Your task to perform on an android device: turn off translation in the chrome app Image 0: 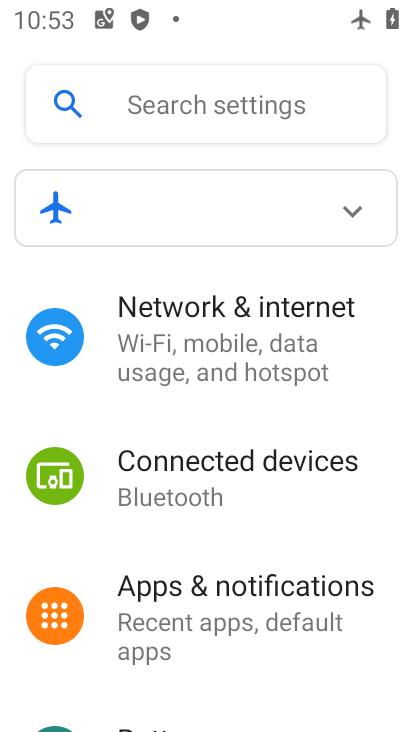
Step 0: press home button
Your task to perform on an android device: turn off translation in the chrome app Image 1: 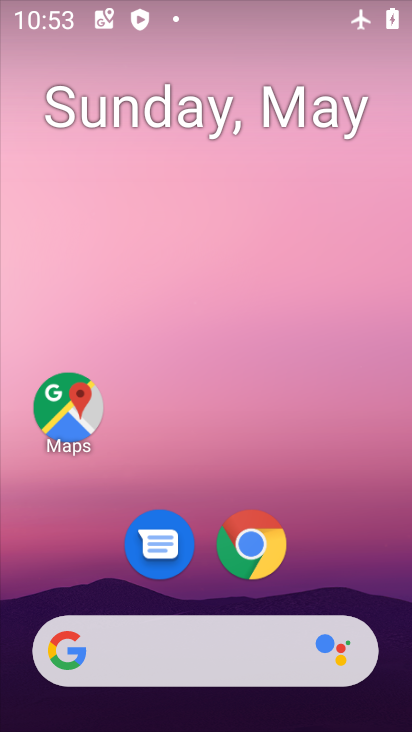
Step 1: drag from (294, 541) to (289, 285)
Your task to perform on an android device: turn off translation in the chrome app Image 2: 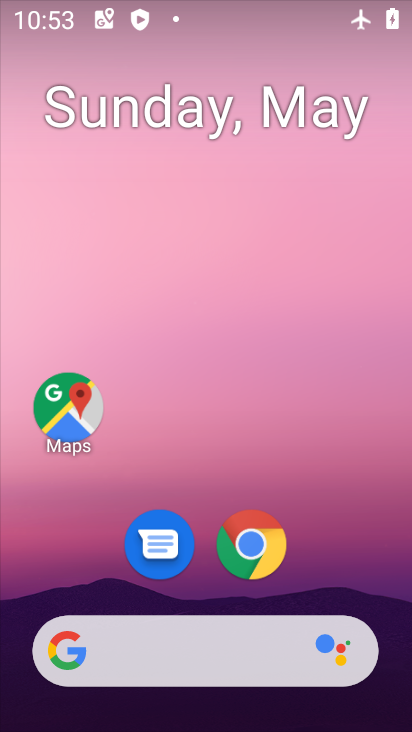
Step 2: drag from (312, 510) to (300, 223)
Your task to perform on an android device: turn off translation in the chrome app Image 3: 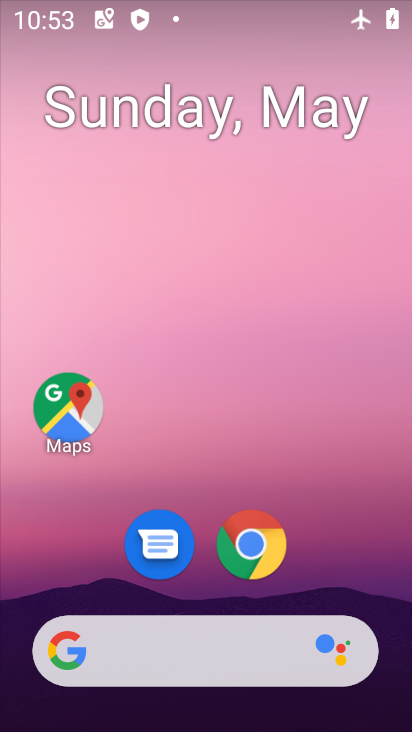
Step 3: drag from (310, 605) to (330, 268)
Your task to perform on an android device: turn off translation in the chrome app Image 4: 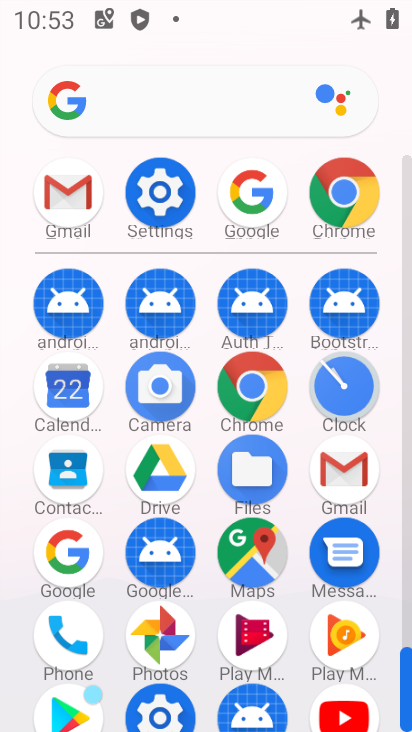
Step 4: click (262, 382)
Your task to perform on an android device: turn off translation in the chrome app Image 5: 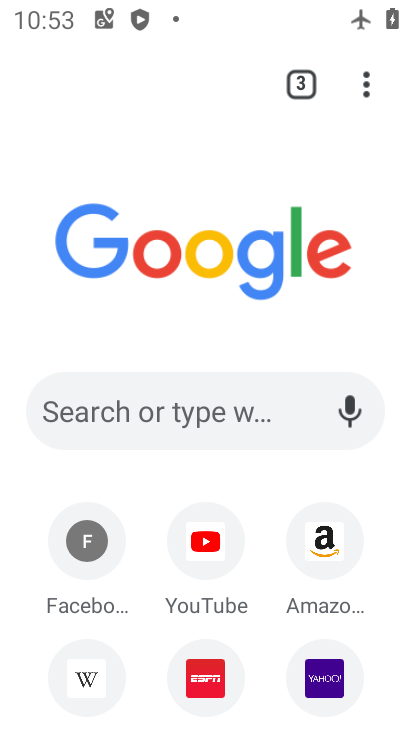
Step 5: click (373, 90)
Your task to perform on an android device: turn off translation in the chrome app Image 6: 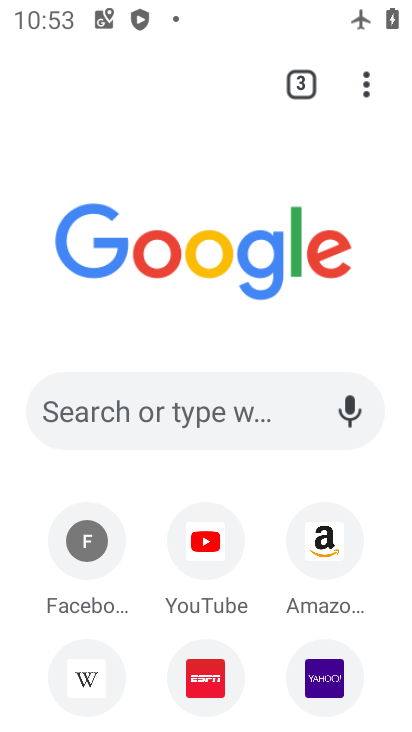
Step 6: click (370, 87)
Your task to perform on an android device: turn off translation in the chrome app Image 7: 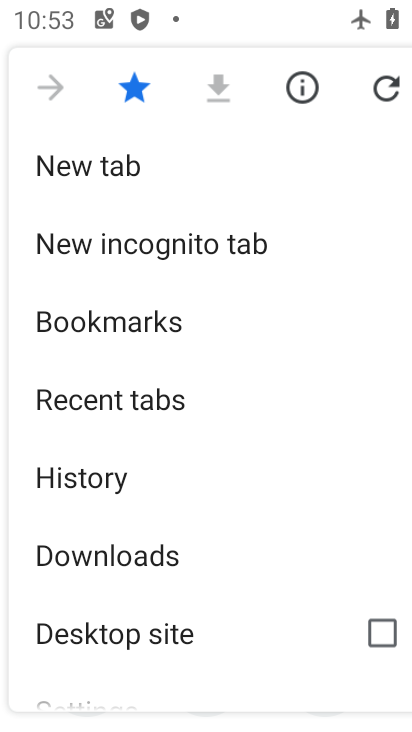
Step 7: drag from (197, 603) to (277, 236)
Your task to perform on an android device: turn off translation in the chrome app Image 8: 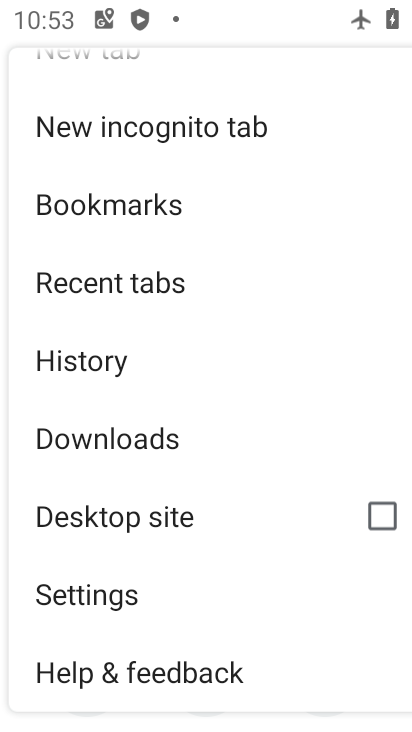
Step 8: click (126, 607)
Your task to perform on an android device: turn off translation in the chrome app Image 9: 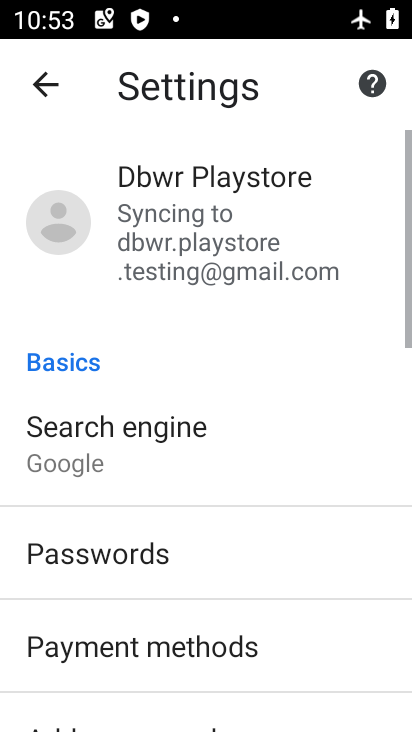
Step 9: drag from (301, 438) to (334, 234)
Your task to perform on an android device: turn off translation in the chrome app Image 10: 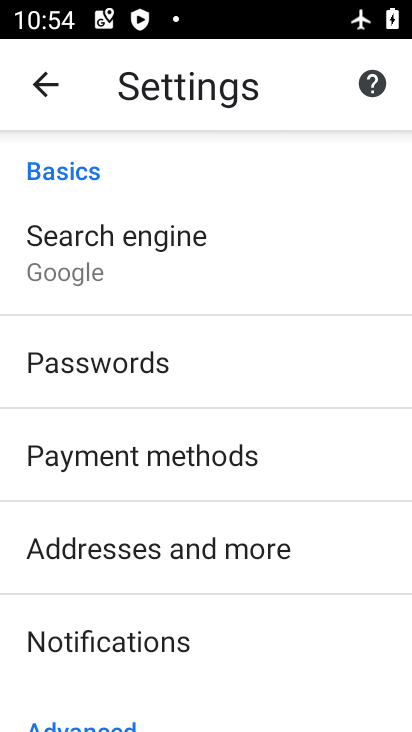
Step 10: drag from (231, 650) to (294, 198)
Your task to perform on an android device: turn off translation in the chrome app Image 11: 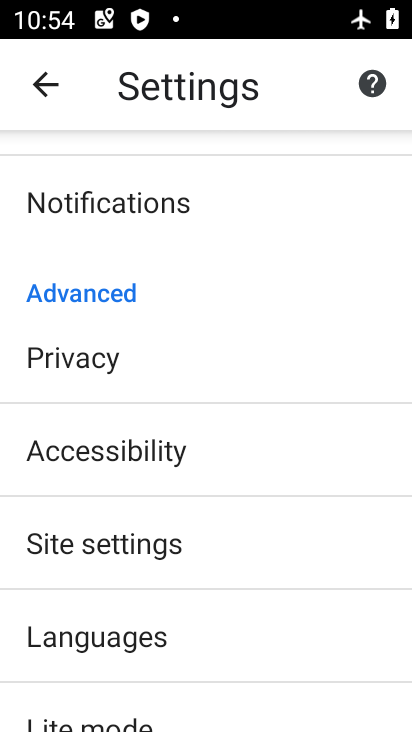
Step 11: drag from (165, 640) to (243, 368)
Your task to perform on an android device: turn off translation in the chrome app Image 12: 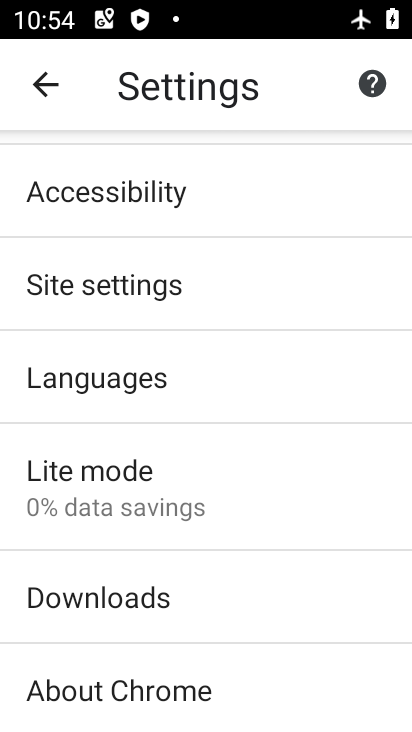
Step 12: click (251, 463)
Your task to perform on an android device: turn off translation in the chrome app Image 13: 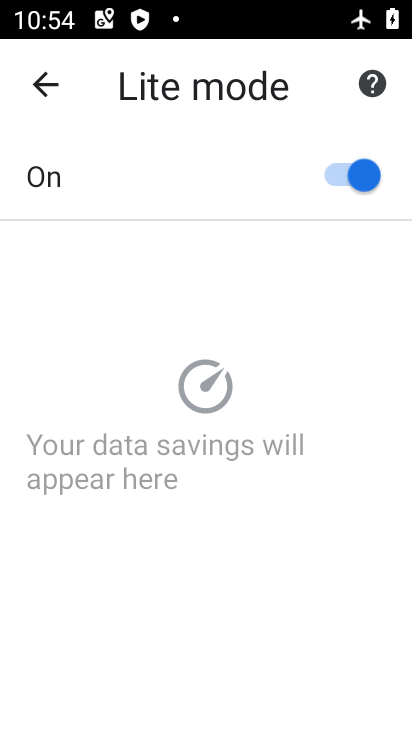
Step 13: click (329, 149)
Your task to perform on an android device: turn off translation in the chrome app Image 14: 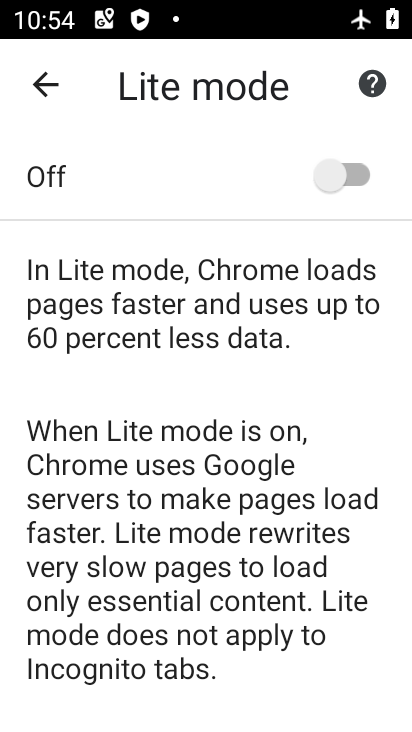
Step 14: task complete